Your task to perform on an android device: turn on bluetooth scan Image 0: 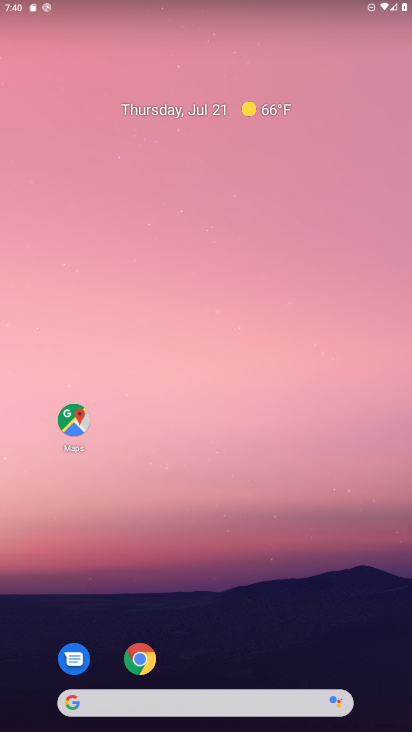
Step 0: click (244, 31)
Your task to perform on an android device: turn on bluetooth scan Image 1: 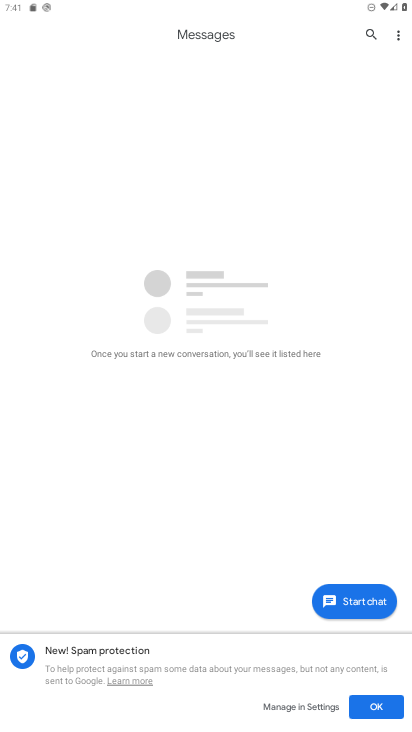
Step 1: press home button
Your task to perform on an android device: turn on bluetooth scan Image 2: 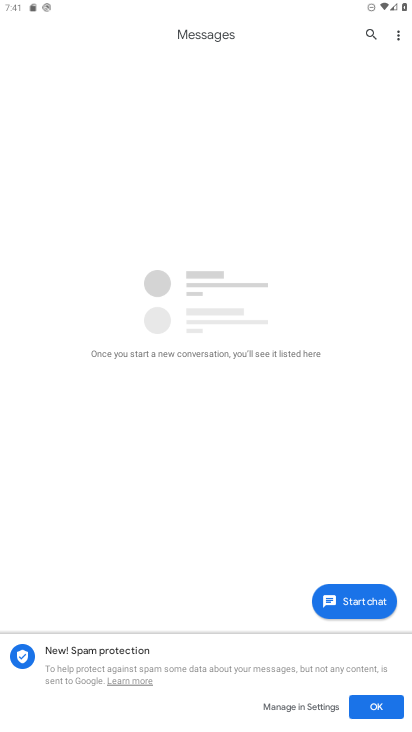
Step 2: press home button
Your task to perform on an android device: turn on bluetooth scan Image 3: 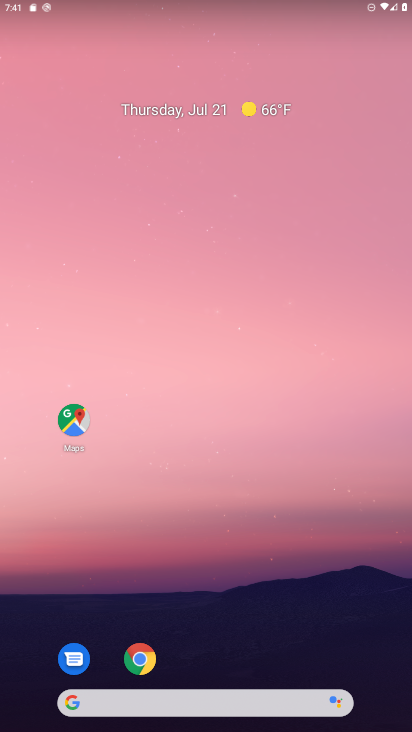
Step 3: drag from (169, 620) to (106, 169)
Your task to perform on an android device: turn on bluetooth scan Image 4: 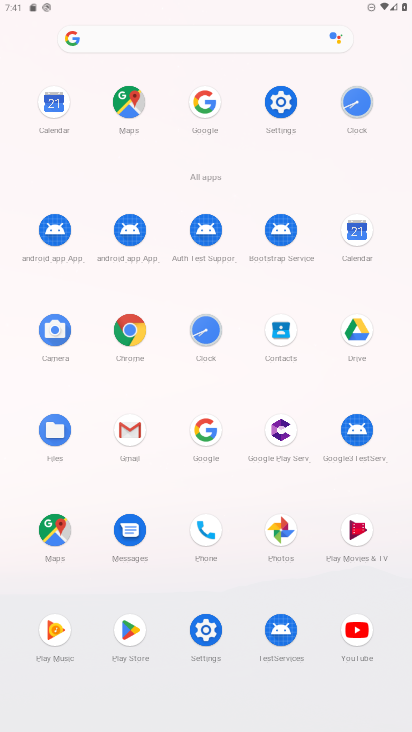
Step 4: click (196, 625)
Your task to perform on an android device: turn on bluetooth scan Image 5: 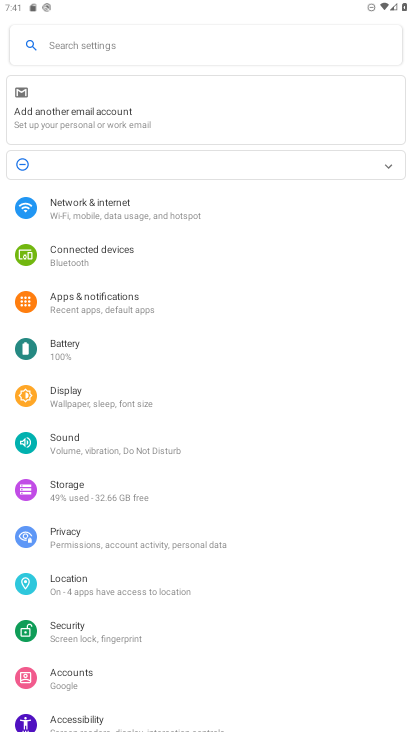
Step 5: drag from (92, 307) to (176, 31)
Your task to perform on an android device: turn on bluetooth scan Image 6: 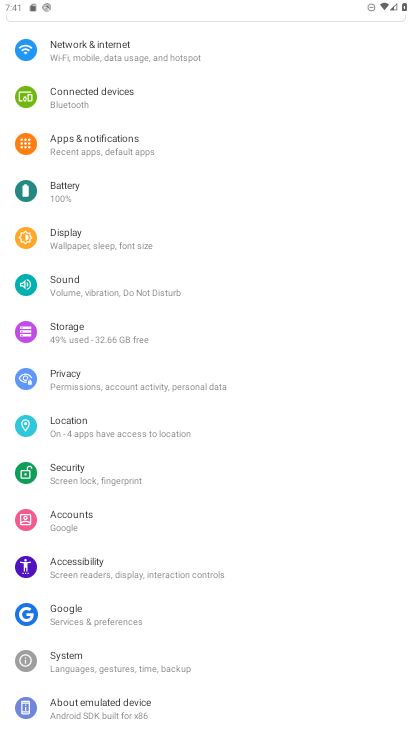
Step 6: click (100, 430)
Your task to perform on an android device: turn on bluetooth scan Image 7: 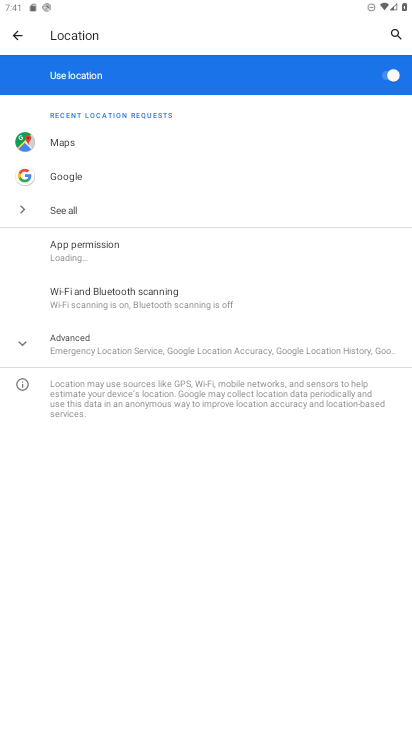
Step 7: click (144, 289)
Your task to perform on an android device: turn on bluetooth scan Image 8: 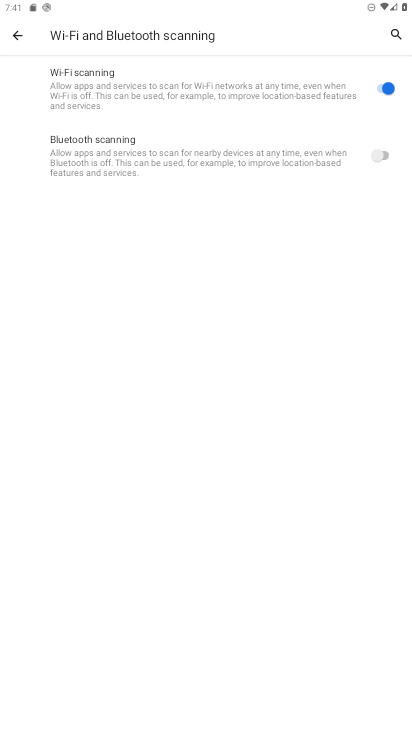
Step 8: click (304, 141)
Your task to perform on an android device: turn on bluetooth scan Image 9: 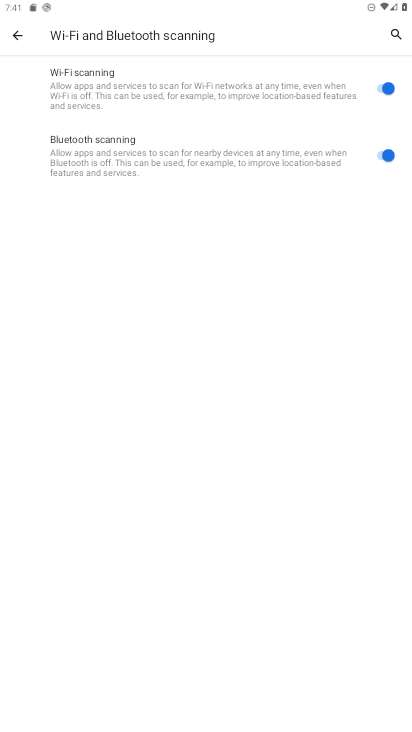
Step 9: task complete